Your task to perform on an android device: Open Android settings Image 0: 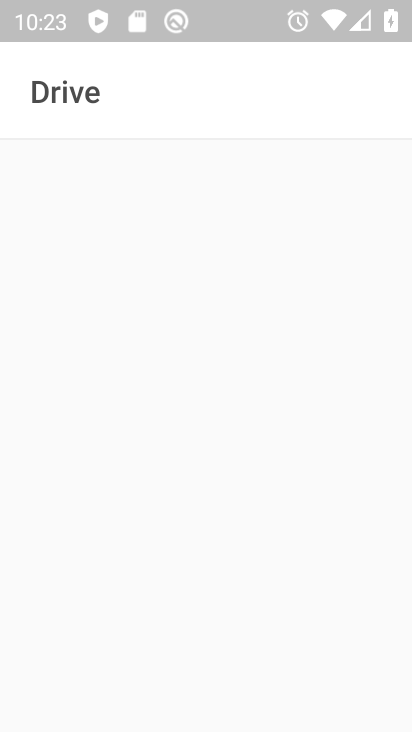
Step 0: press home button
Your task to perform on an android device: Open Android settings Image 1: 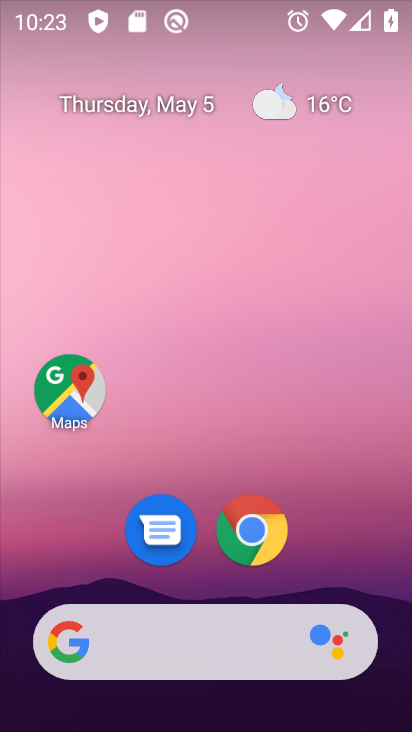
Step 1: drag from (326, 522) to (311, 63)
Your task to perform on an android device: Open Android settings Image 2: 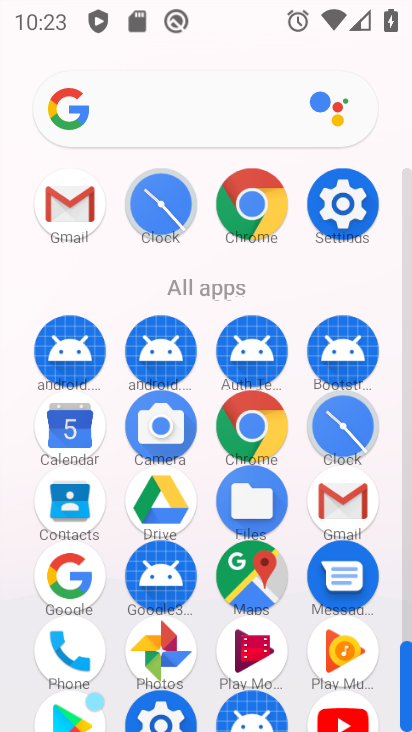
Step 2: click (330, 189)
Your task to perform on an android device: Open Android settings Image 3: 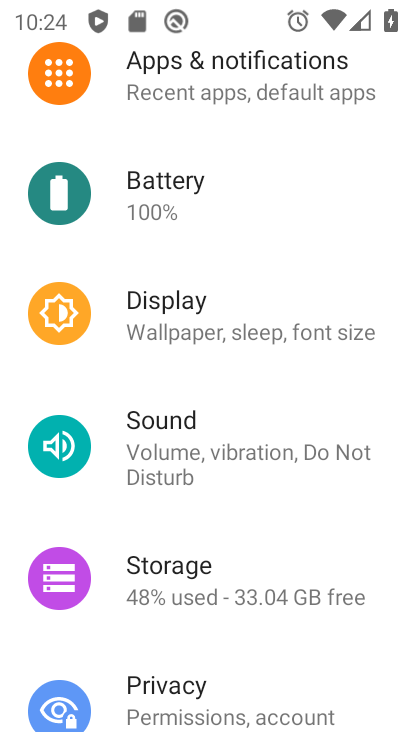
Step 3: task complete